Your task to perform on an android device: open a new tab in the chrome app Image 0: 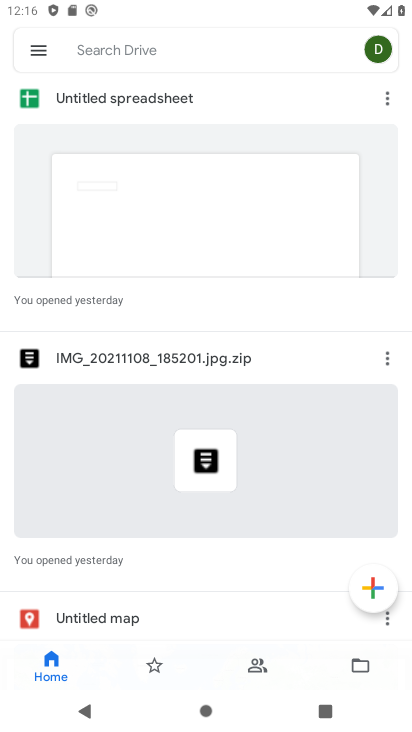
Step 0: press home button
Your task to perform on an android device: open a new tab in the chrome app Image 1: 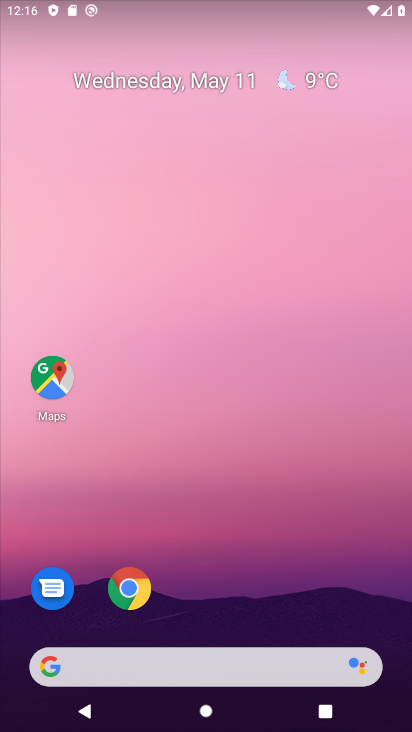
Step 1: click (135, 597)
Your task to perform on an android device: open a new tab in the chrome app Image 2: 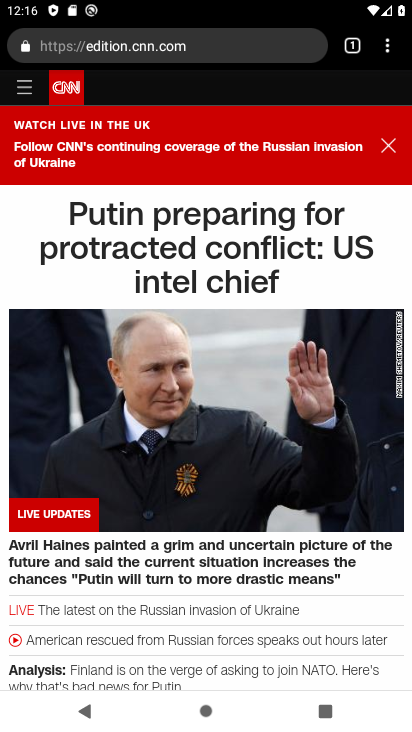
Step 2: task complete